Your task to perform on an android device: add a label to a message in the gmail app Image 0: 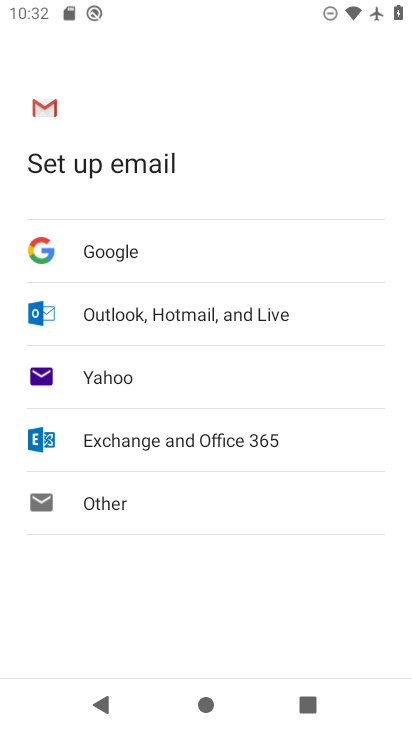
Step 0: press home button
Your task to perform on an android device: add a label to a message in the gmail app Image 1: 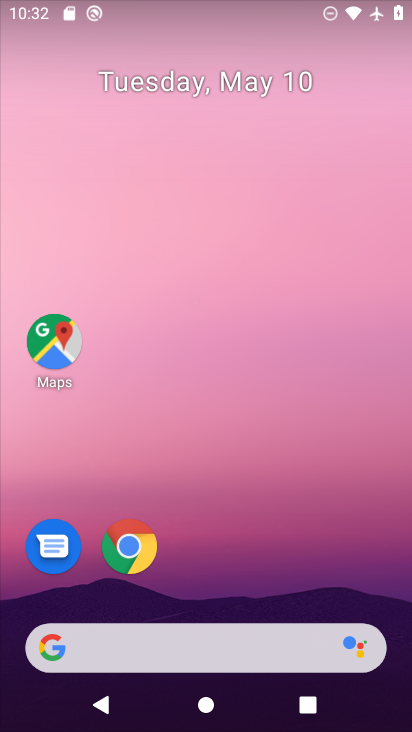
Step 1: drag from (302, 574) to (298, 96)
Your task to perform on an android device: add a label to a message in the gmail app Image 2: 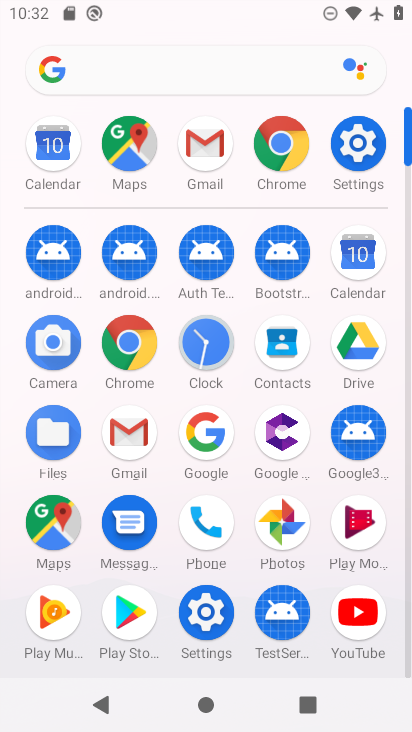
Step 2: click (208, 145)
Your task to perform on an android device: add a label to a message in the gmail app Image 3: 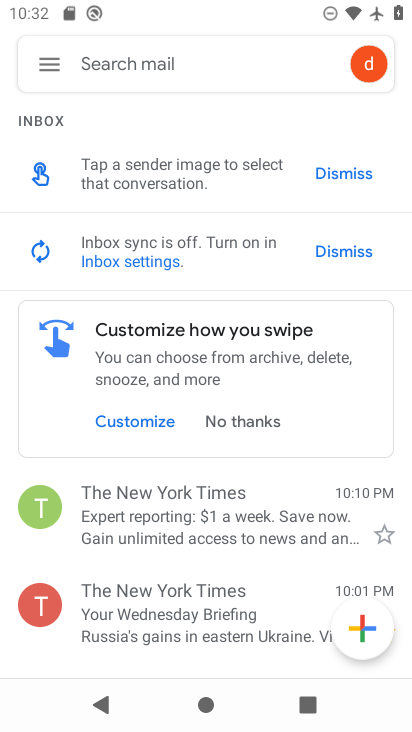
Step 3: click (219, 519)
Your task to perform on an android device: add a label to a message in the gmail app Image 4: 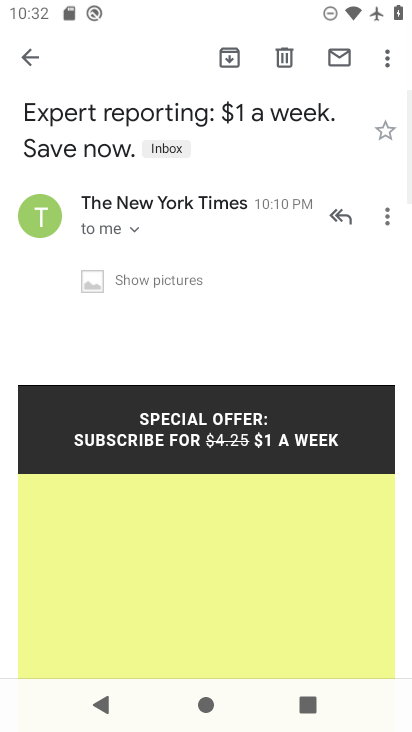
Step 4: click (388, 58)
Your task to perform on an android device: add a label to a message in the gmail app Image 5: 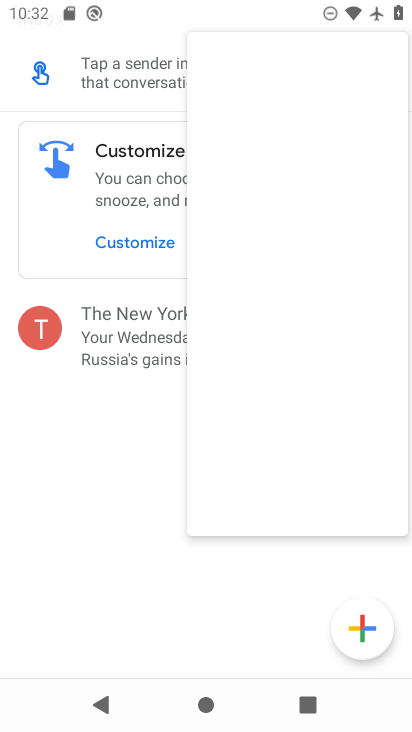
Step 5: click (134, 350)
Your task to perform on an android device: add a label to a message in the gmail app Image 6: 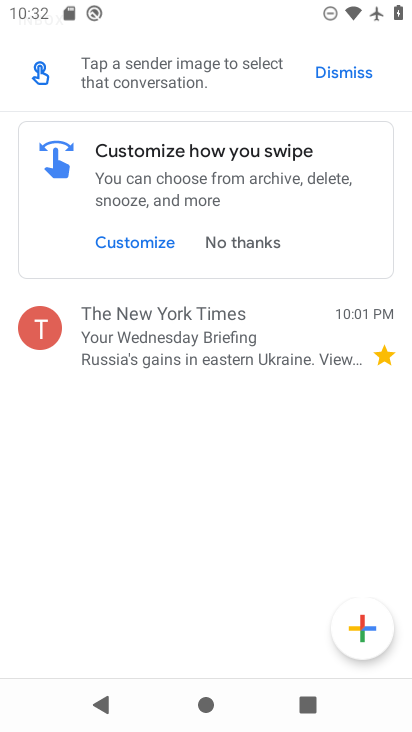
Step 6: click (171, 344)
Your task to perform on an android device: add a label to a message in the gmail app Image 7: 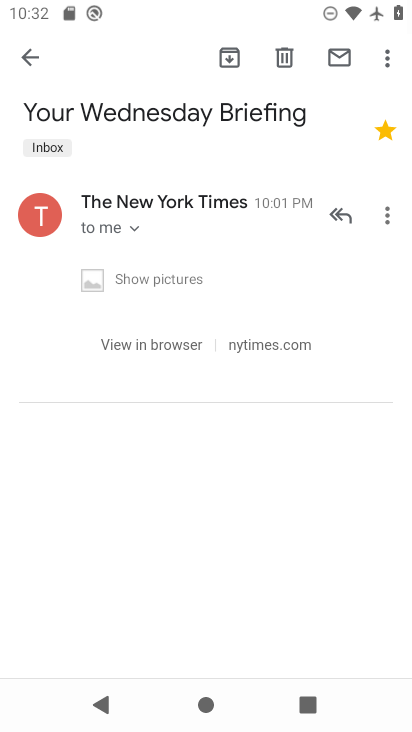
Step 7: click (384, 53)
Your task to perform on an android device: add a label to a message in the gmail app Image 8: 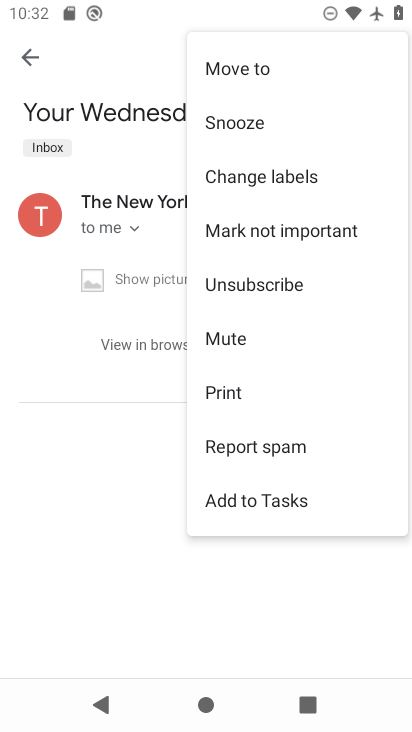
Step 8: click (303, 173)
Your task to perform on an android device: add a label to a message in the gmail app Image 9: 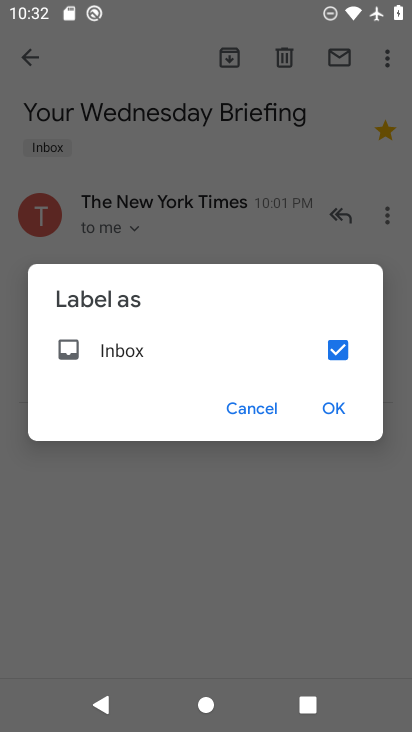
Step 9: task complete